Your task to perform on an android device: refresh tabs in the chrome app Image 0: 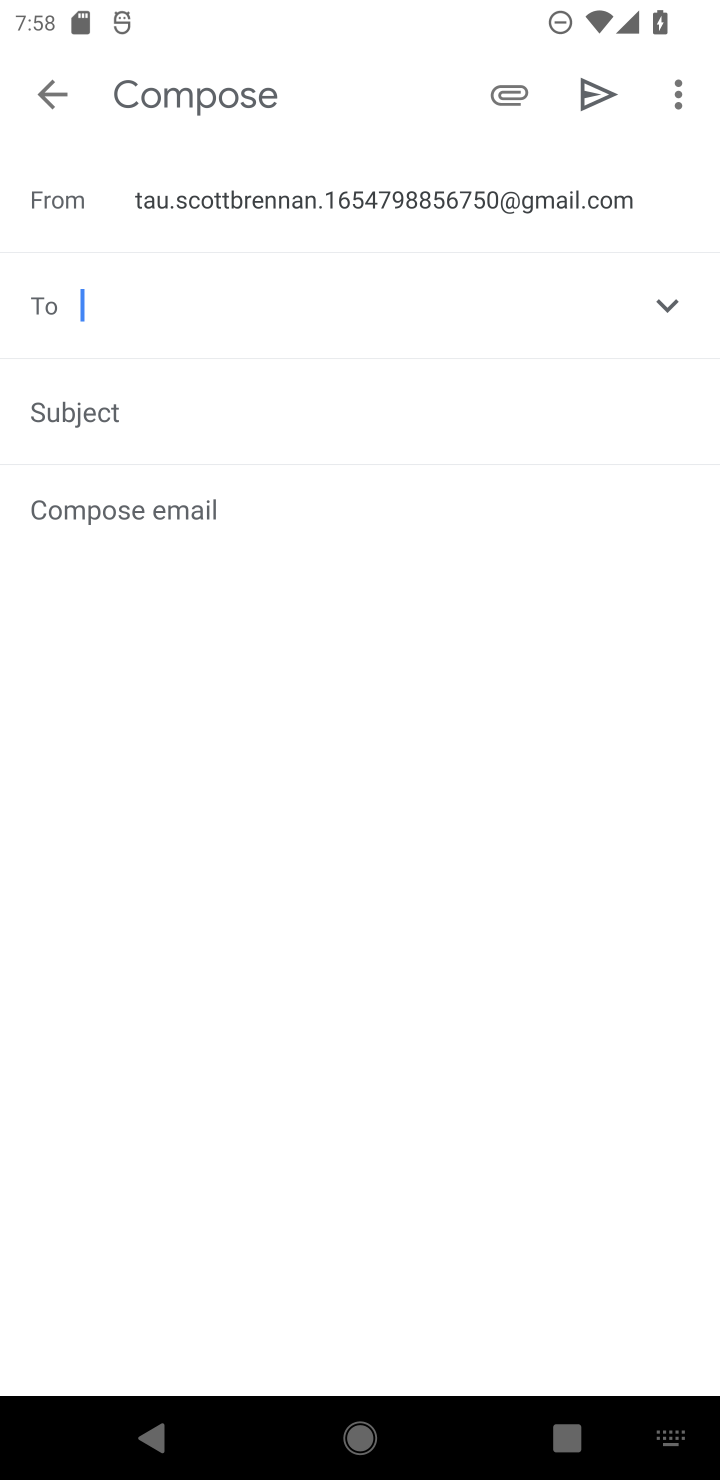
Step 0: press home button
Your task to perform on an android device: refresh tabs in the chrome app Image 1: 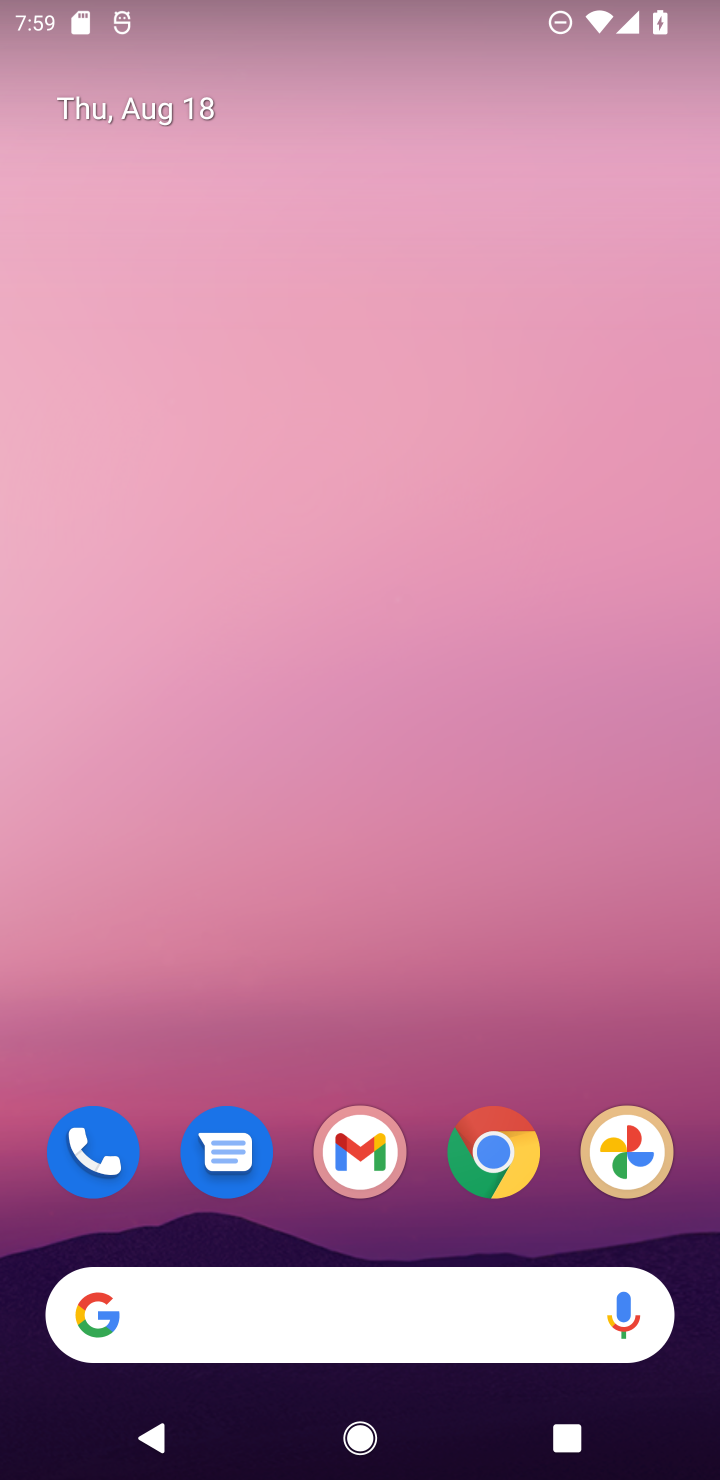
Step 1: click (490, 1152)
Your task to perform on an android device: refresh tabs in the chrome app Image 2: 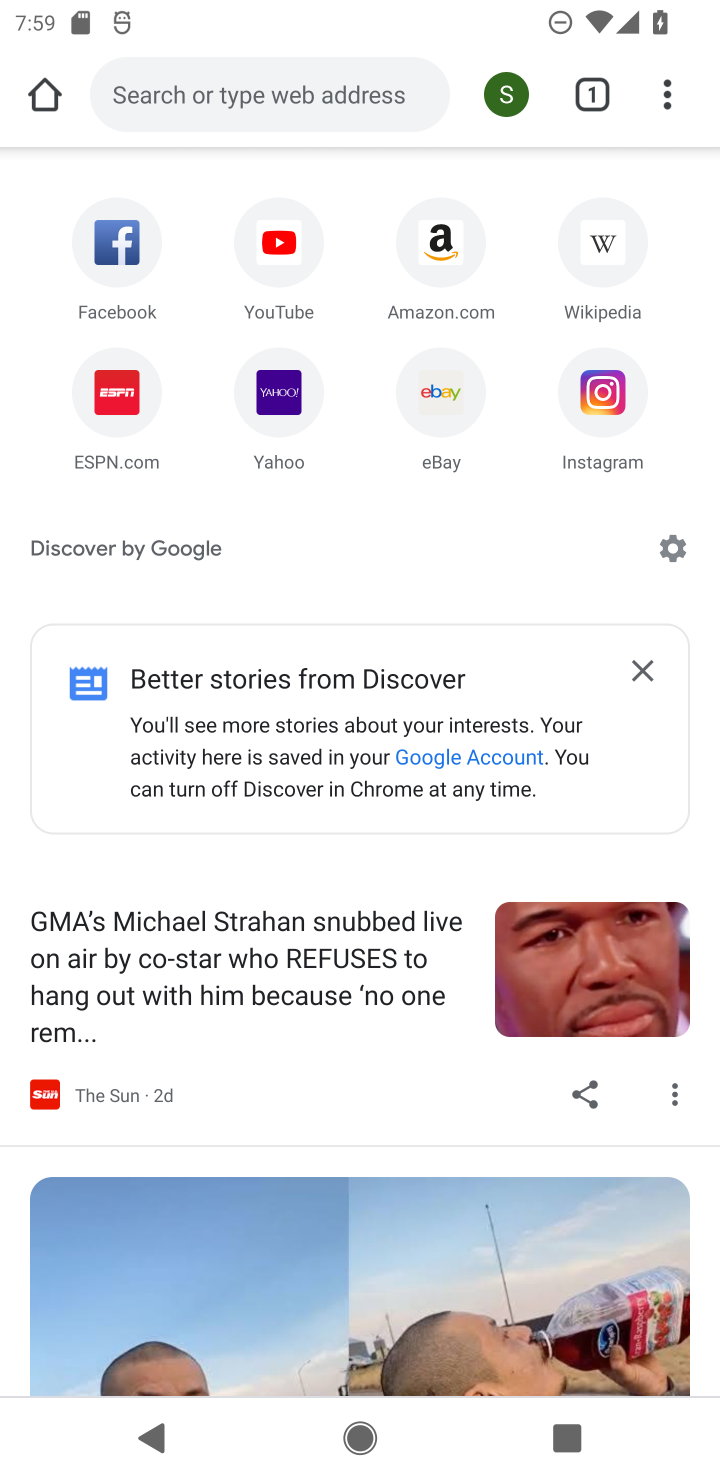
Step 2: click (667, 106)
Your task to perform on an android device: refresh tabs in the chrome app Image 3: 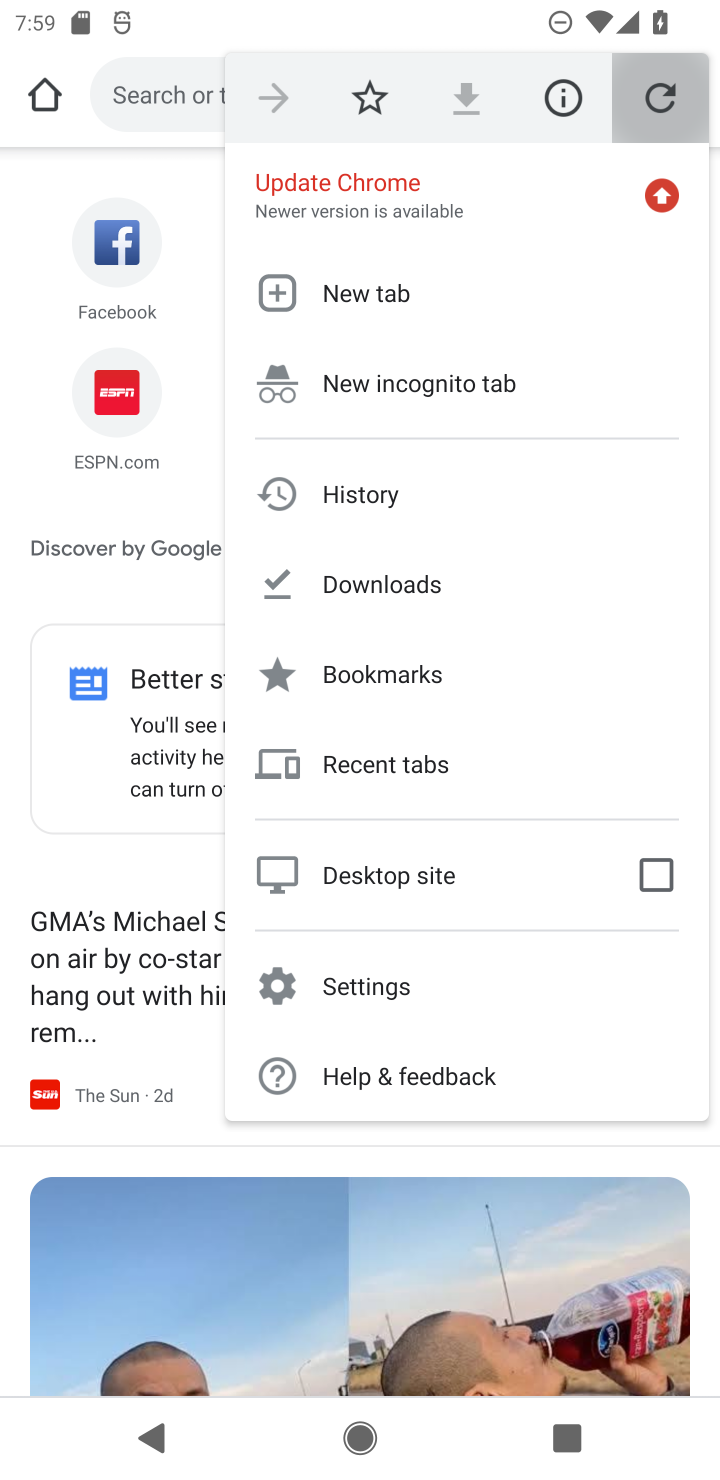
Step 3: click (656, 96)
Your task to perform on an android device: refresh tabs in the chrome app Image 4: 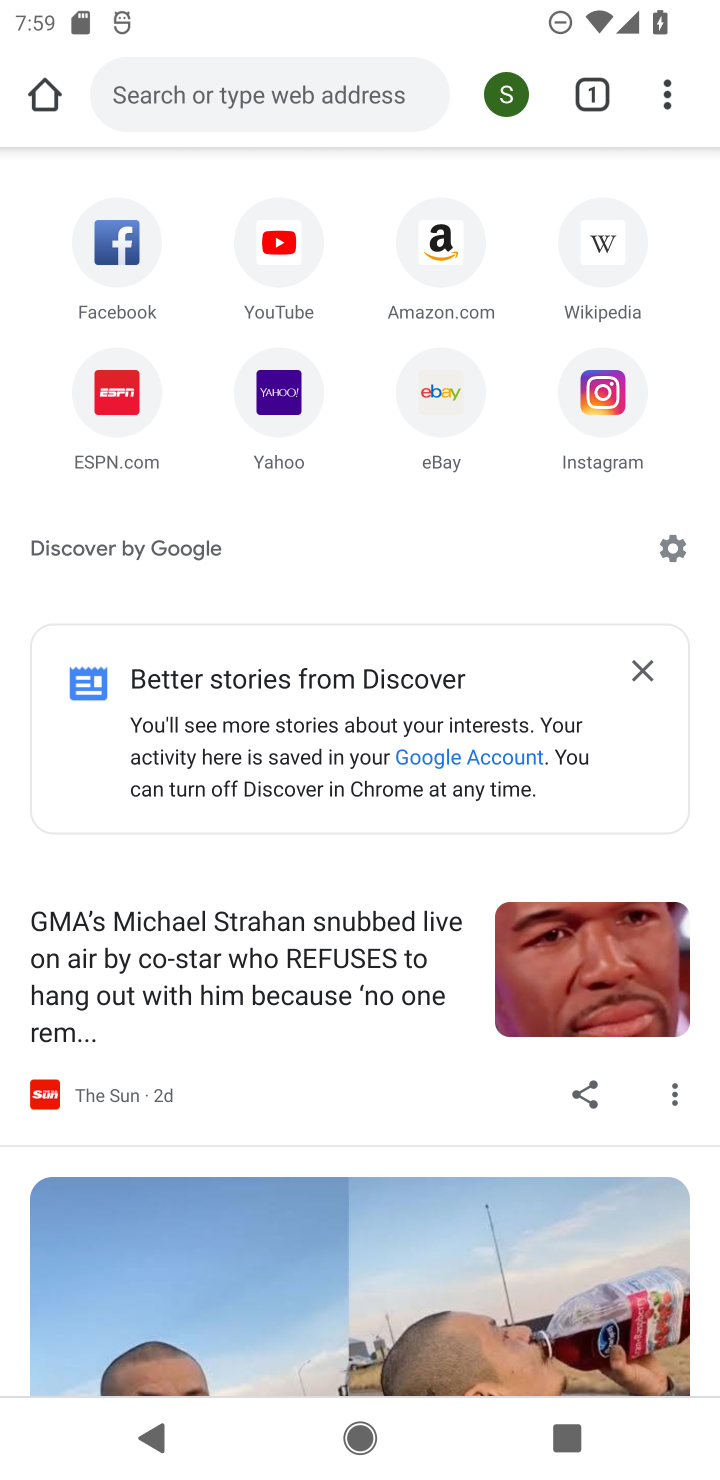
Step 4: task complete